Your task to perform on an android device: Go to ESPN.com Image 0: 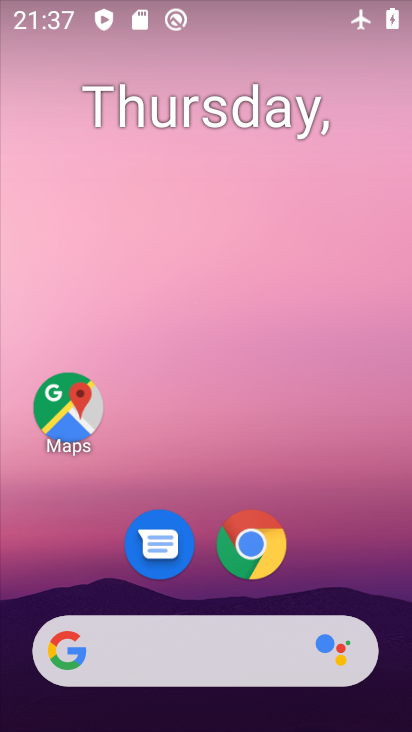
Step 0: click (184, 670)
Your task to perform on an android device: Go to ESPN.com Image 1: 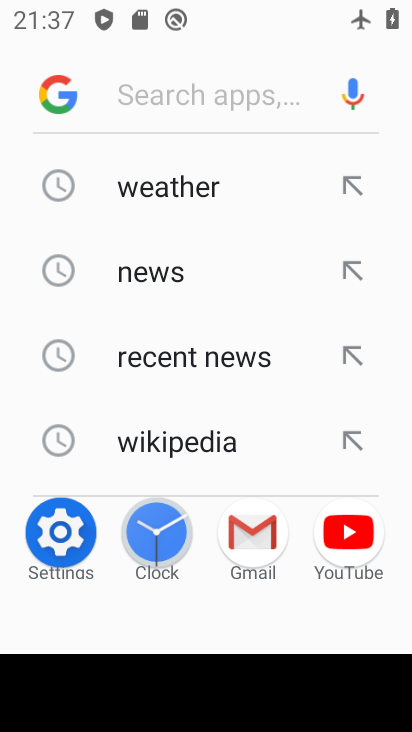
Step 1: type "espn.com"
Your task to perform on an android device: Go to ESPN.com Image 2: 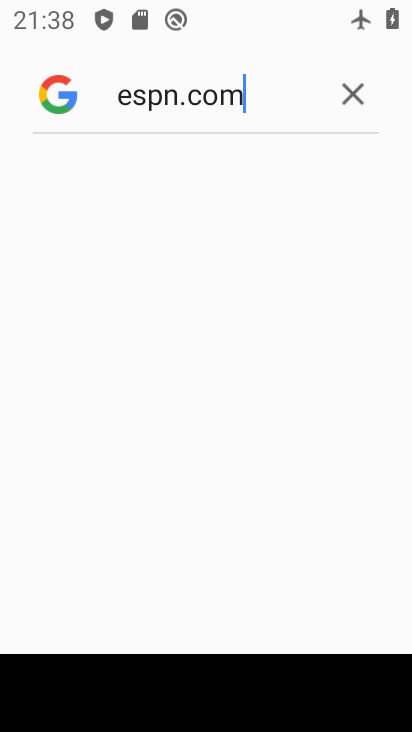
Step 2: task complete